Your task to perform on an android device: see creations saved in the google photos Image 0: 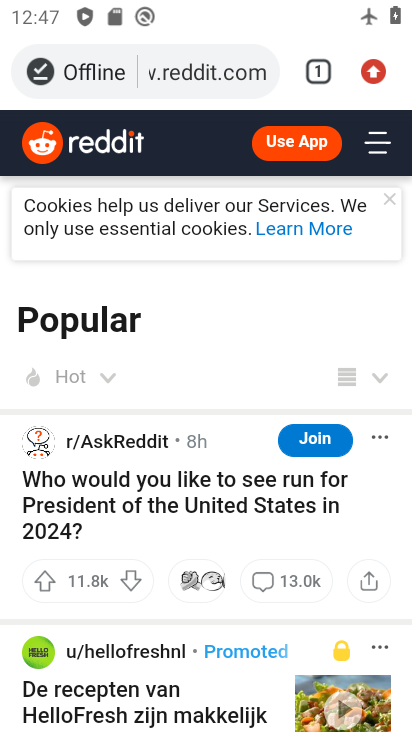
Step 0: press home button
Your task to perform on an android device: see creations saved in the google photos Image 1: 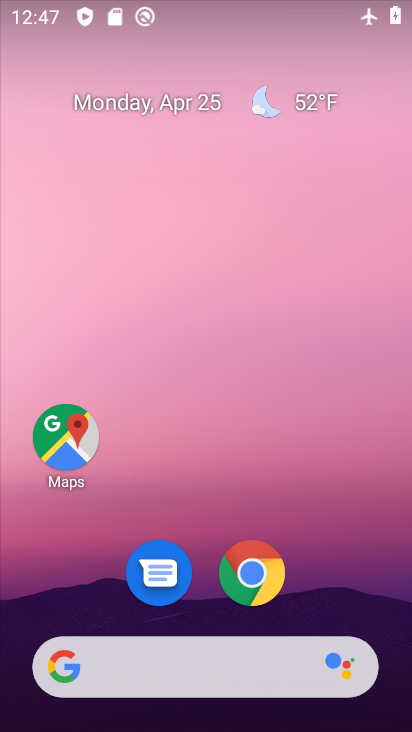
Step 1: drag from (364, 570) to (264, 132)
Your task to perform on an android device: see creations saved in the google photos Image 2: 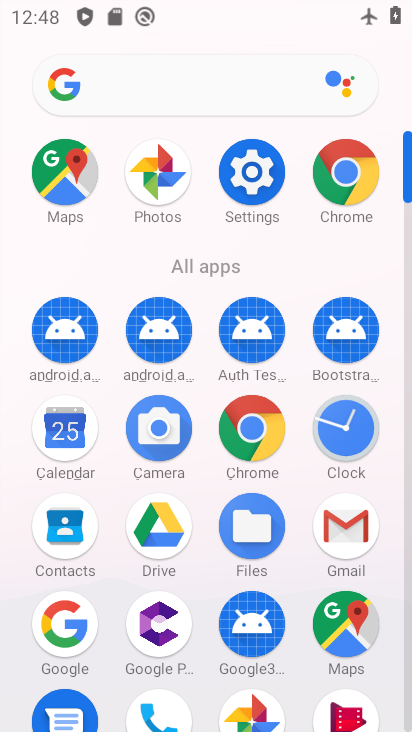
Step 2: click (160, 174)
Your task to perform on an android device: see creations saved in the google photos Image 3: 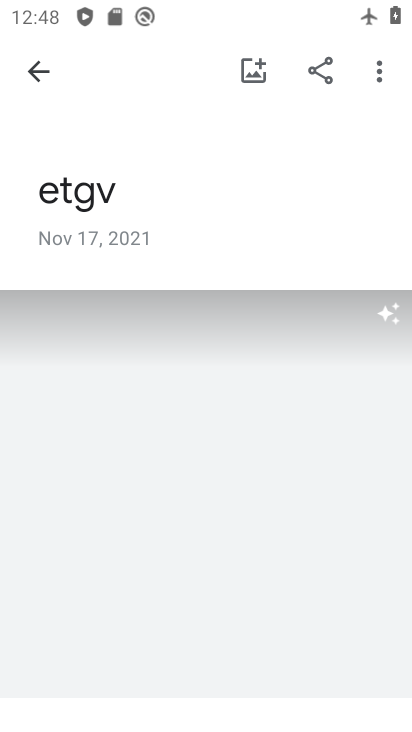
Step 3: click (29, 68)
Your task to perform on an android device: see creations saved in the google photos Image 4: 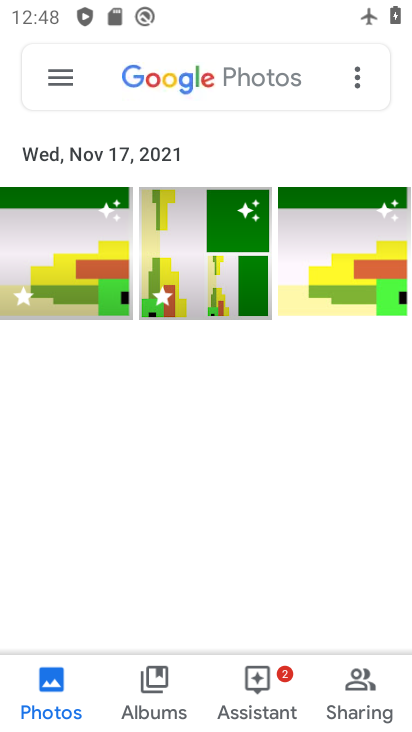
Step 4: click (260, 66)
Your task to perform on an android device: see creations saved in the google photos Image 5: 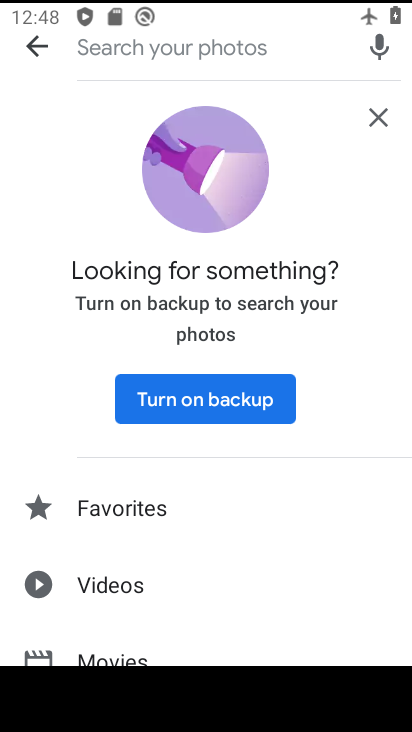
Step 5: drag from (201, 565) to (177, 160)
Your task to perform on an android device: see creations saved in the google photos Image 6: 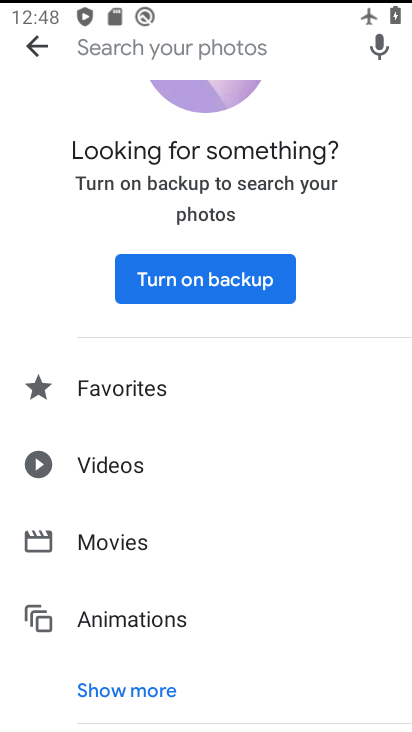
Step 6: click (171, 694)
Your task to perform on an android device: see creations saved in the google photos Image 7: 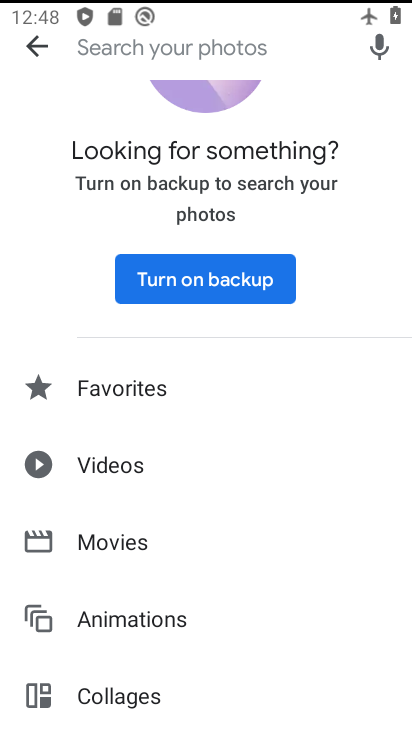
Step 7: drag from (174, 680) to (155, 411)
Your task to perform on an android device: see creations saved in the google photos Image 8: 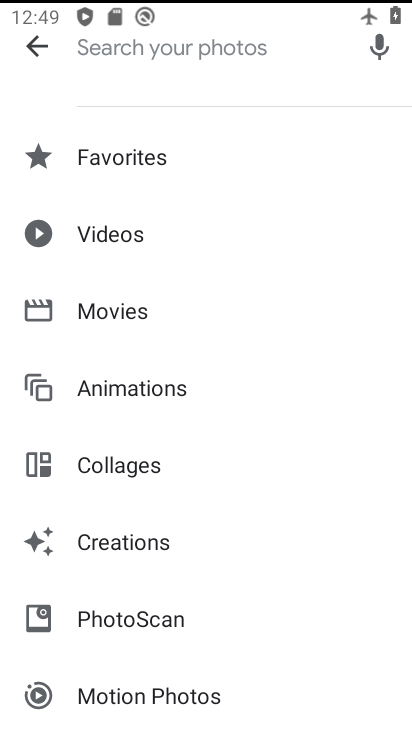
Step 8: click (155, 552)
Your task to perform on an android device: see creations saved in the google photos Image 9: 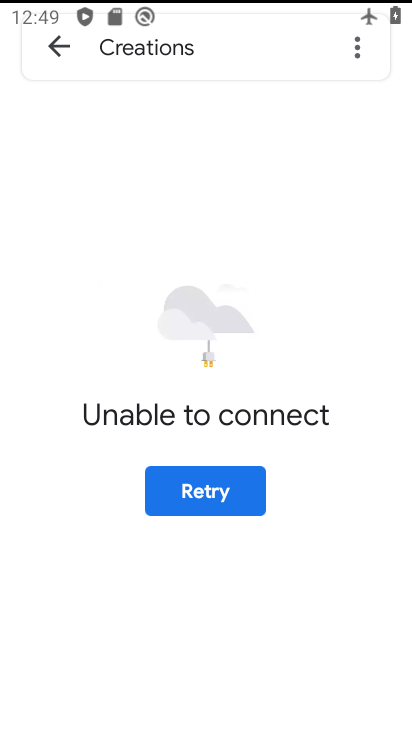
Step 9: drag from (378, 6) to (380, 545)
Your task to perform on an android device: see creations saved in the google photos Image 10: 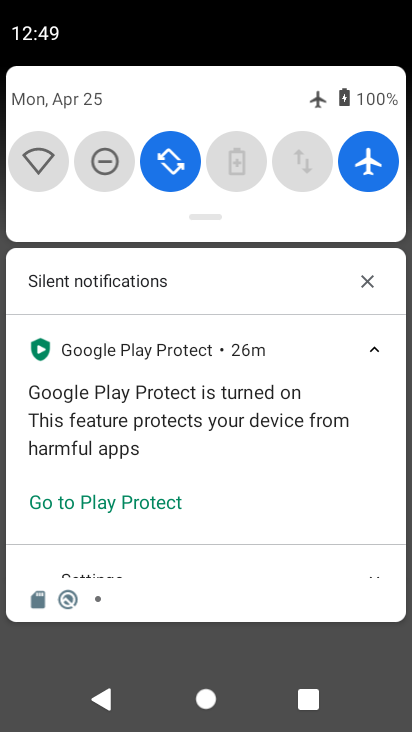
Step 10: click (372, 156)
Your task to perform on an android device: see creations saved in the google photos Image 11: 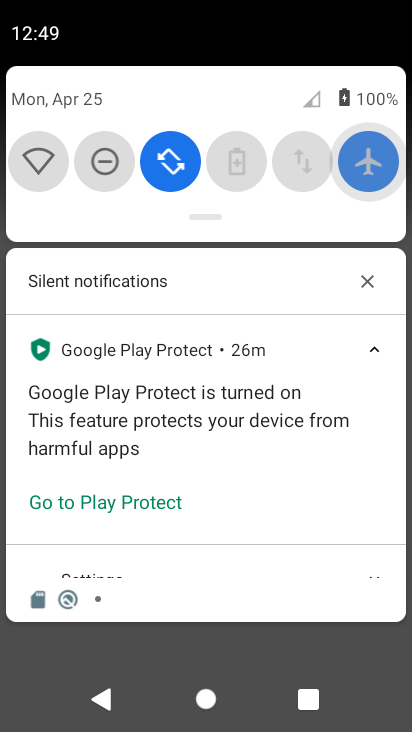
Step 11: drag from (295, 636) to (274, 0)
Your task to perform on an android device: see creations saved in the google photos Image 12: 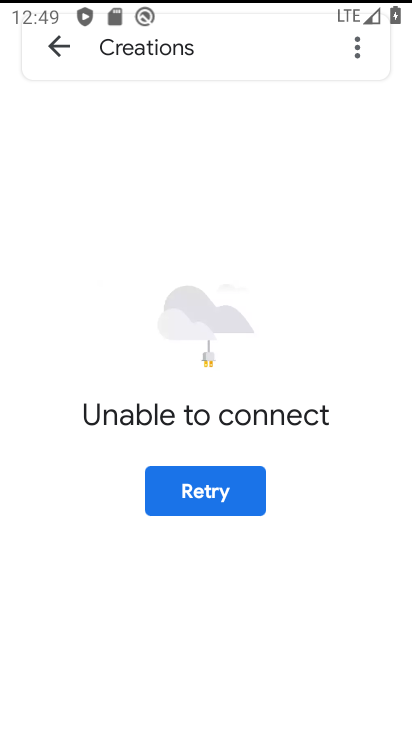
Step 12: drag from (290, 194) to (277, 456)
Your task to perform on an android device: see creations saved in the google photos Image 13: 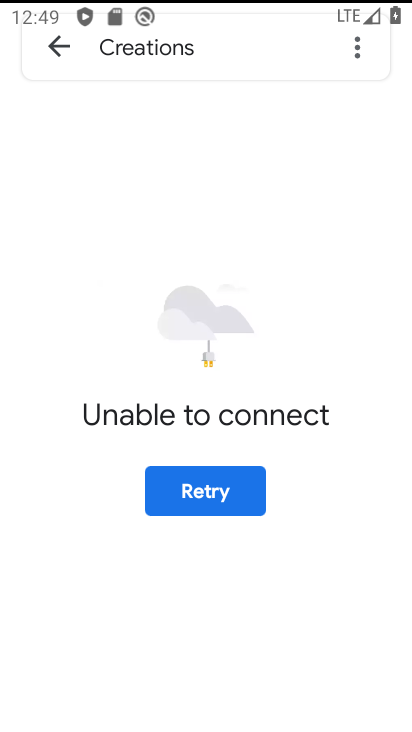
Step 13: click (237, 468)
Your task to perform on an android device: see creations saved in the google photos Image 14: 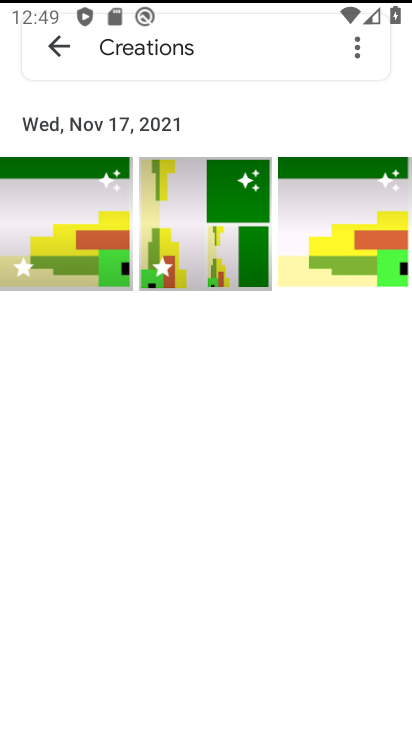
Step 14: task complete